Your task to perform on an android device: Go to wifi settings Image 0: 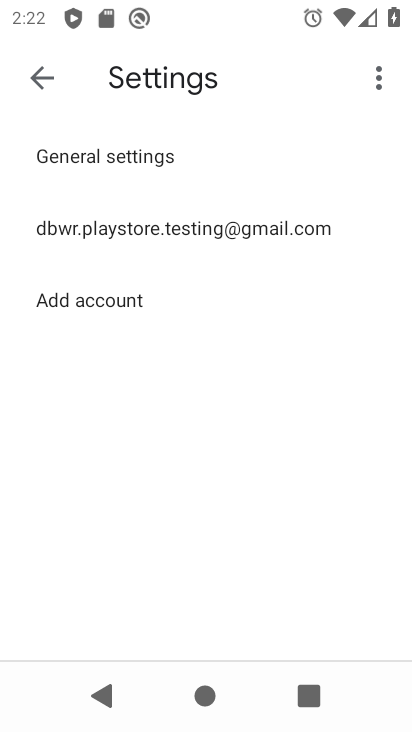
Step 0: press home button
Your task to perform on an android device: Go to wifi settings Image 1: 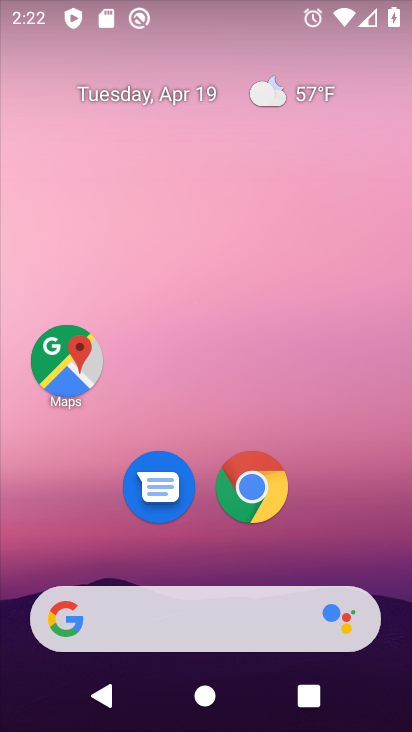
Step 1: drag from (368, 512) to (386, 134)
Your task to perform on an android device: Go to wifi settings Image 2: 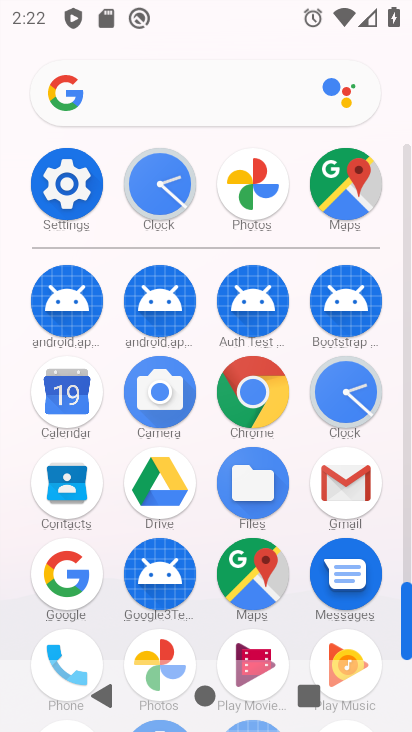
Step 2: click (70, 197)
Your task to perform on an android device: Go to wifi settings Image 3: 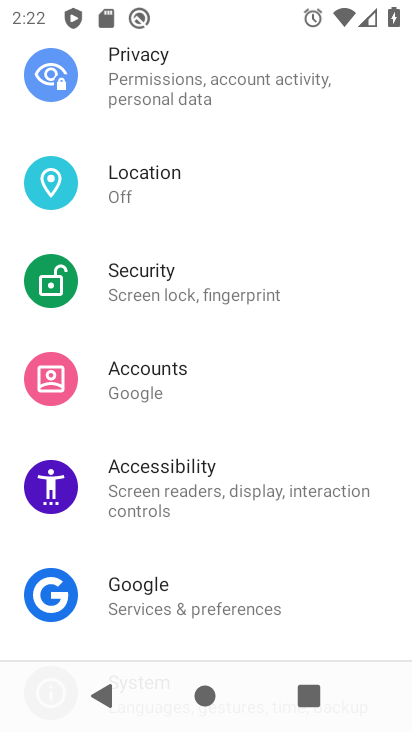
Step 3: drag from (326, 170) to (366, 578)
Your task to perform on an android device: Go to wifi settings Image 4: 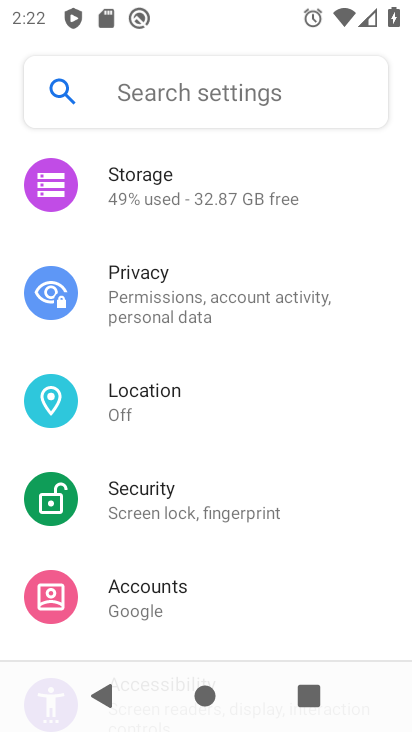
Step 4: drag from (356, 192) to (377, 574)
Your task to perform on an android device: Go to wifi settings Image 5: 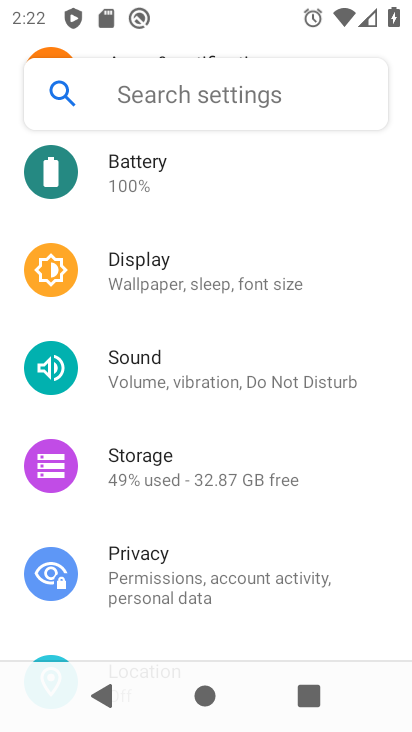
Step 5: drag from (376, 215) to (407, 631)
Your task to perform on an android device: Go to wifi settings Image 6: 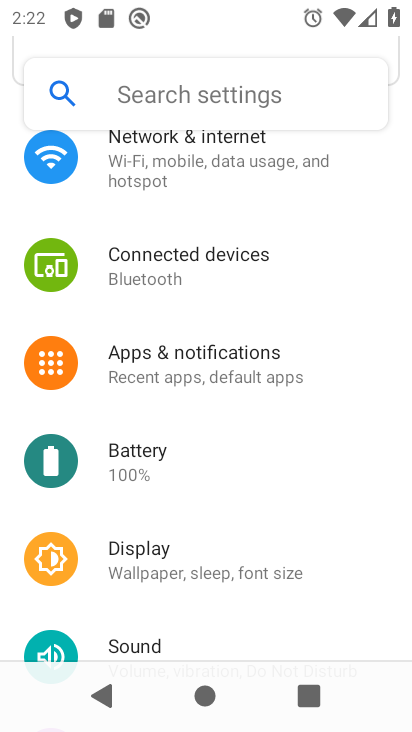
Step 6: drag from (386, 213) to (386, 650)
Your task to perform on an android device: Go to wifi settings Image 7: 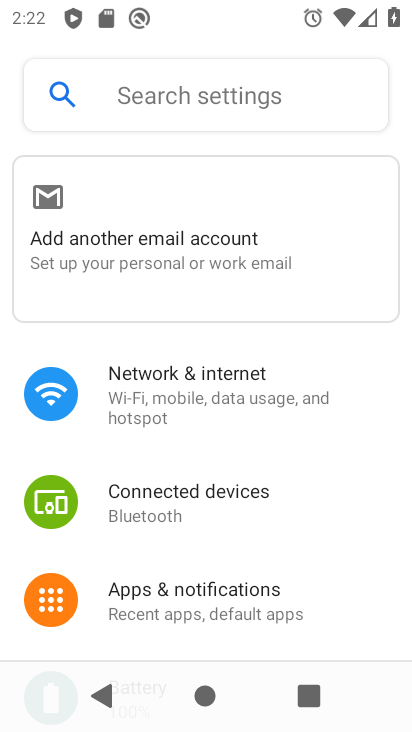
Step 7: click (241, 402)
Your task to perform on an android device: Go to wifi settings Image 8: 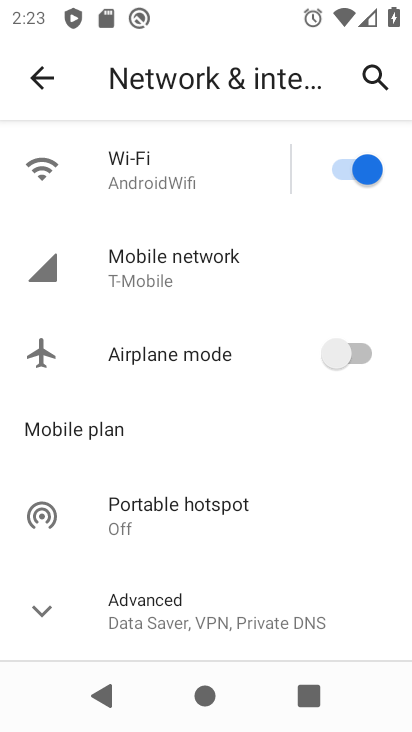
Step 8: click (229, 160)
Your task to perform on an android device: Go to wifi settings Image 9: 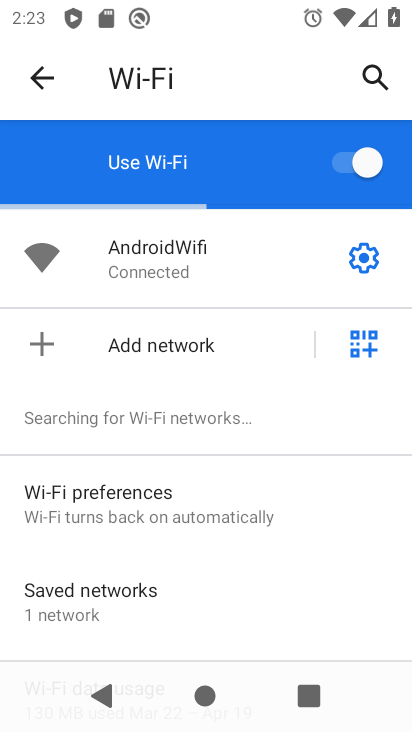
Step 9: task complete